Your task to perform on an android device: move a message to another label in the gmail app Image 0: 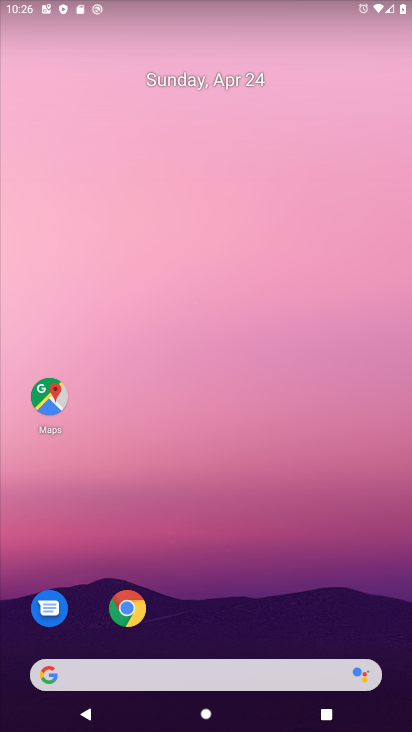
Step 0: drag from (272, 563) to (205, 52)
Your task to perform on an android device: move a message to another label in the gmail app Image 1: 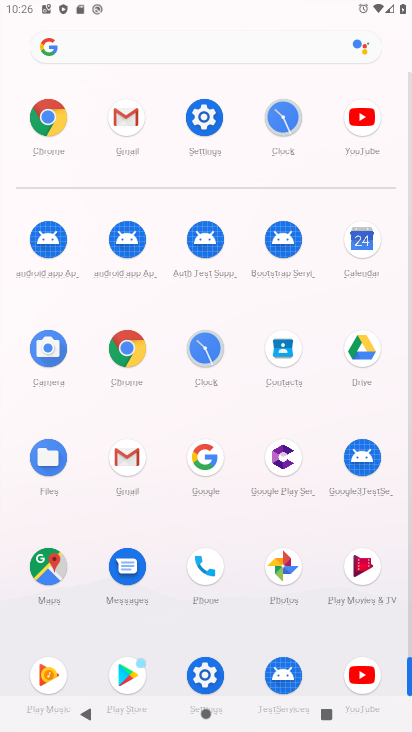
Step 1: drag from (1, 514) to (8, 232)
Your task to perform on an android device: move a message to another label in the gmail app Image 2: 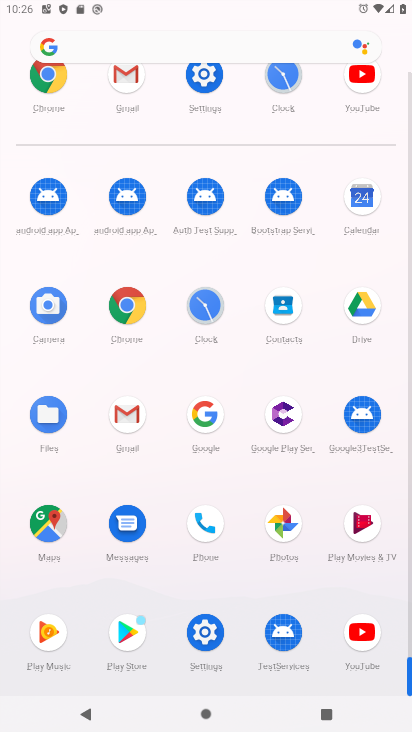
Step 2: click (120, 411)
Your task to perform on an android device: move a message to another label in the gmail app Image 3: 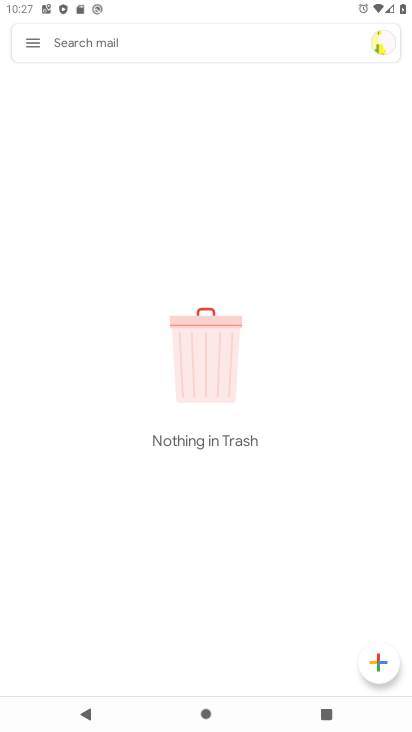
Step 3: click (46, 44)
Your task to perform on an android device: move a message to another label in the gmail app Image 4: 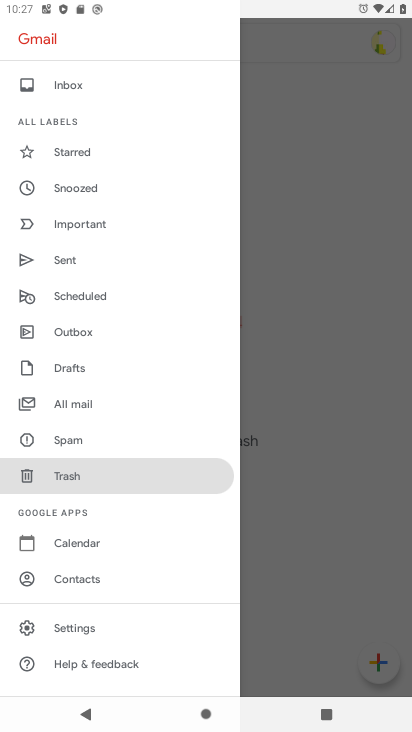
Step 4: click (91, 403)
Your task to perform on an android device: move a message to another label in the gmail app Image 5: 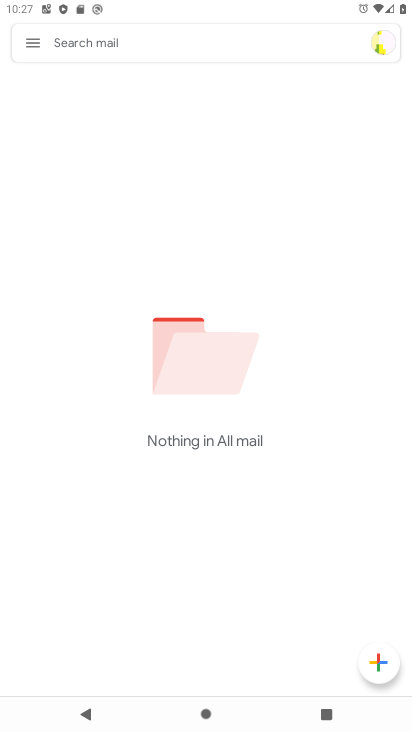
Step 5: task complete